Your task to perform on an android device: Open the calendar and show me this week's events? Image 0: 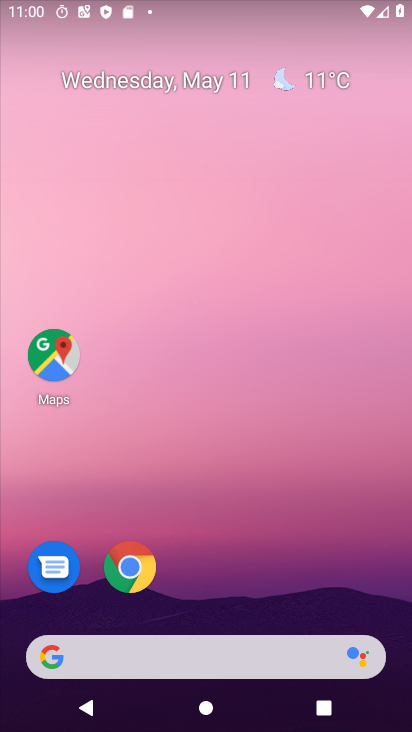
Step 0: drag from (319, 323) to (379, 191)
Your task to perform on an android device: Open the calendar and show me this week's events? Image 1: 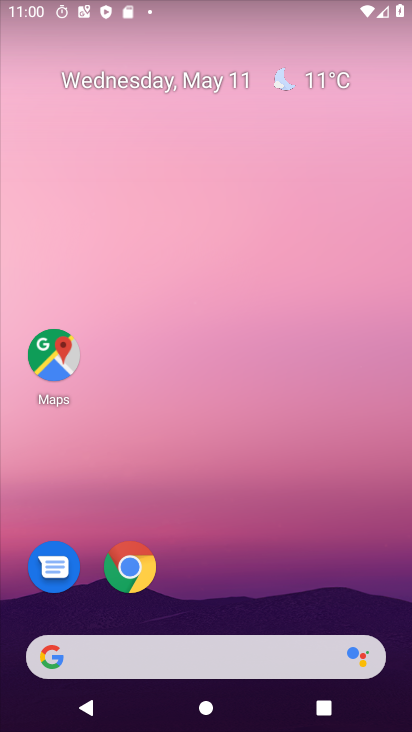
Step 1: drag from (391, 574) to (395, 339)
Your task to perform on an android device: Open the calendar and show me this week's events? Image 2: 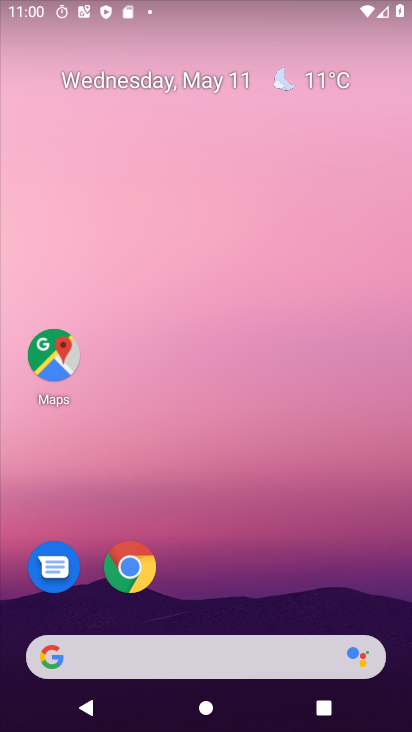
Step 2: drag from (309, 514) to (368, 0)
Your task to perform on an android device: Open the calendar and show me this week's events? Image 3: 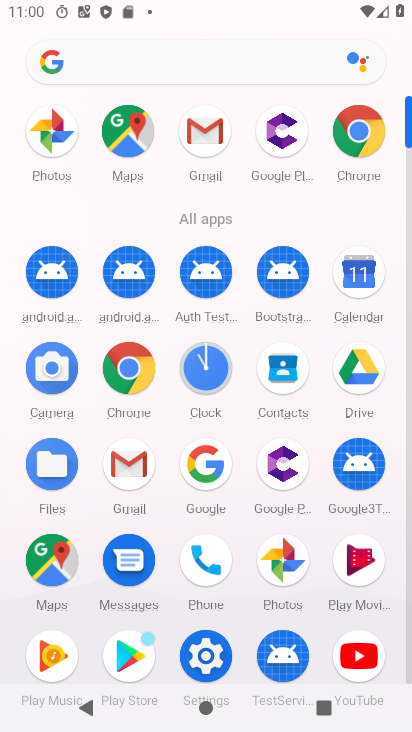
Step 3: click (362, 278)
Your task to perform on an android device: Open the calendar and show me this week's events? Image 4: 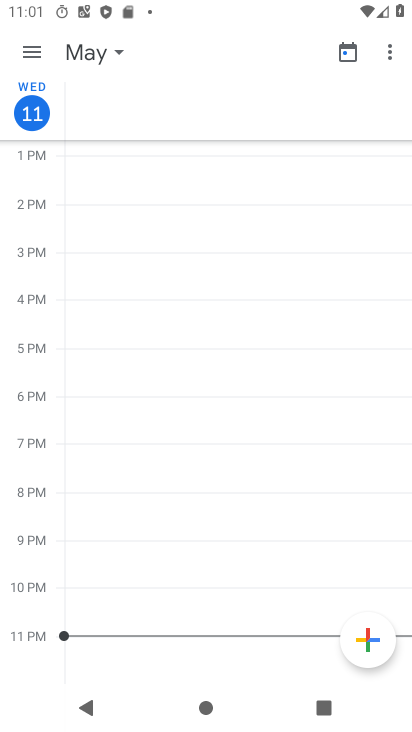
Step 4: click (99, 38)
Your task to perform on an android device: Open the calendar and show me this week's events? Image 5: 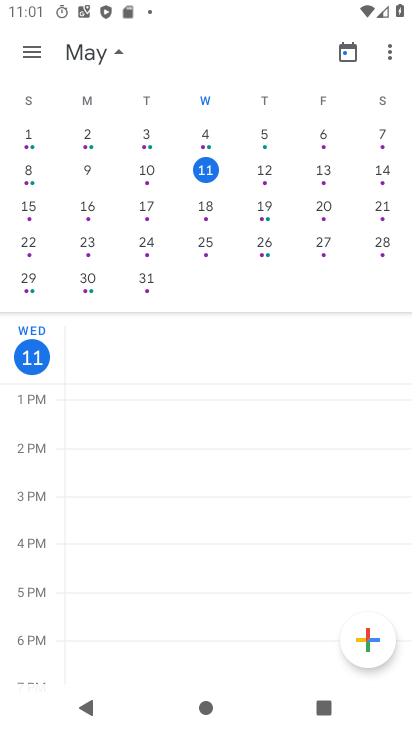
Step 5: click (270, 171)
Your task to perform on an android device: Open the calendar and show me this week's events? Image 6: 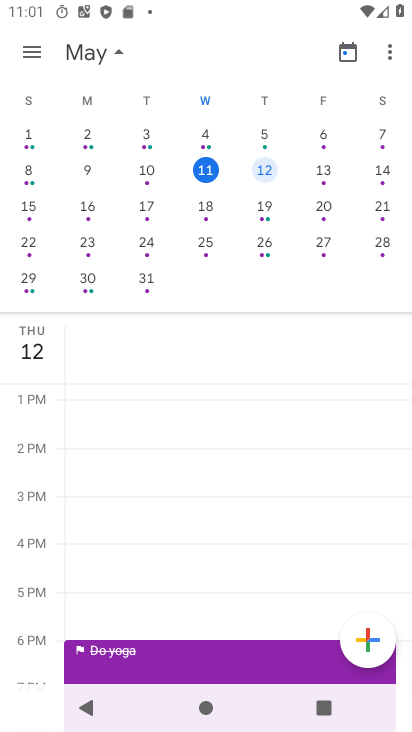
Step 6: task complete